Your task to perform on an android device: refresh tabs in the chrome app Image 0: 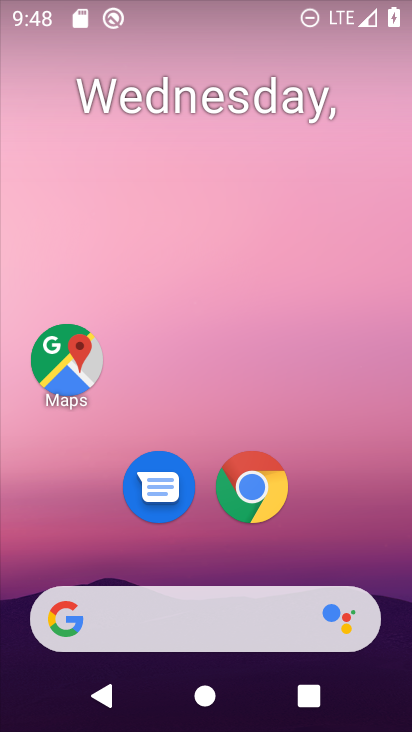
Step 0: click (256, 490)
Your task to perform on an android device: refresh tabs in the chrome app Image 1: 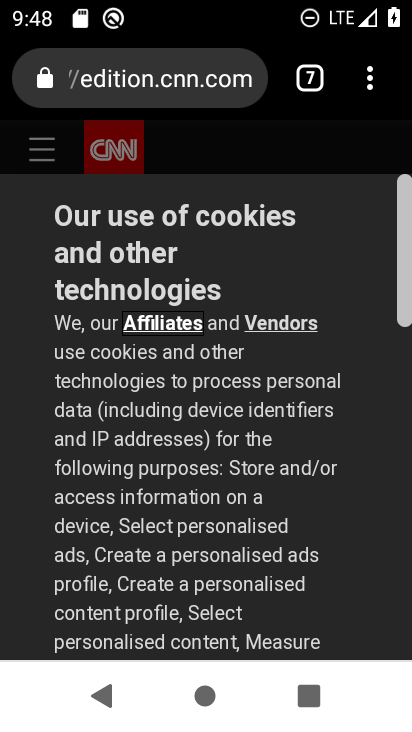
Step 1: click (371, 75)
Your task to perform on an android device: refresh tabs in the chrome app Image 2: 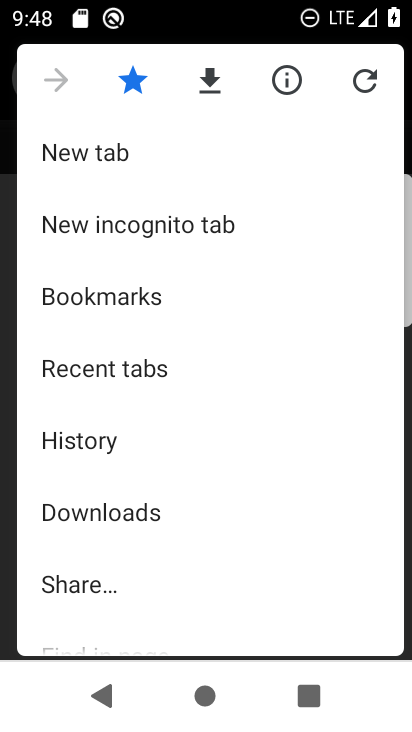
Step 2: click (364, 71)
Your task to perform on an android device: refresh tabs in the chrome app Image 3: 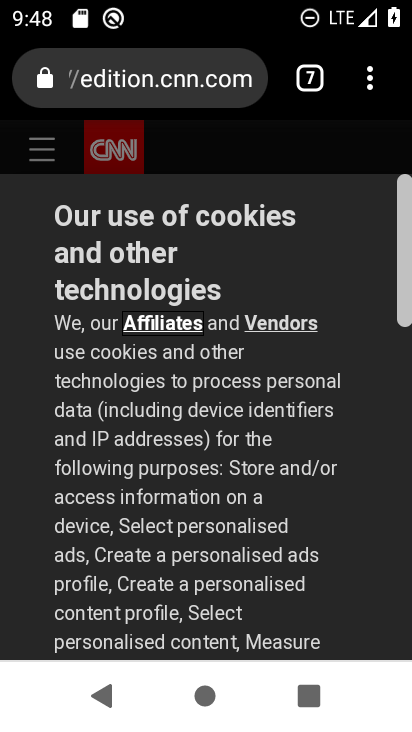
Step 3: task complete